Your task to perform on an android device: turn off location history Image 0: 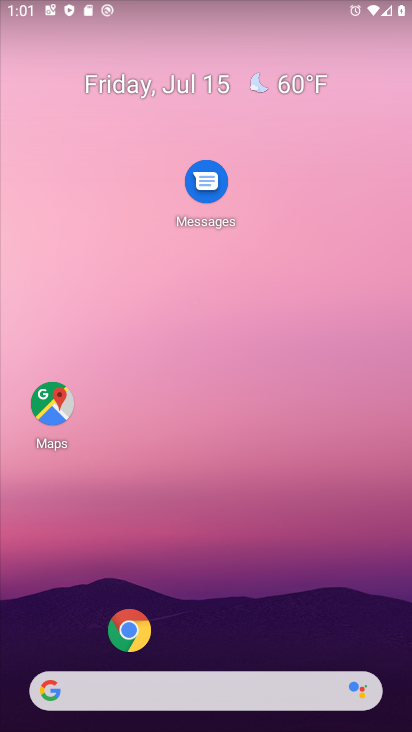
Step 0: drag from (10, 606) to (182, 86)
Your task to perform on an android device: turn off location history Image 1: 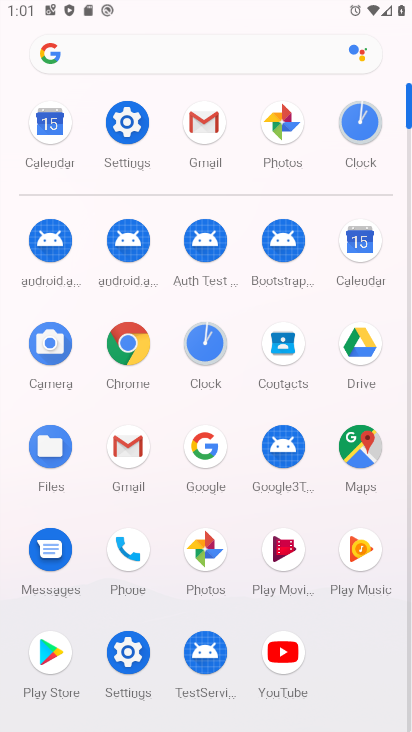
Step 1: click (128, 629)
Your task to perform on an android device: turn off location history Image 2: 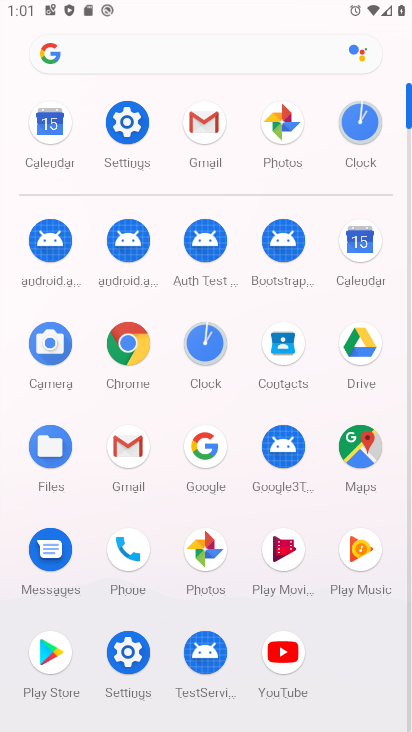
Step 2: click (120, 656)
Your task to perform on an android device: turn off location history Image 3: 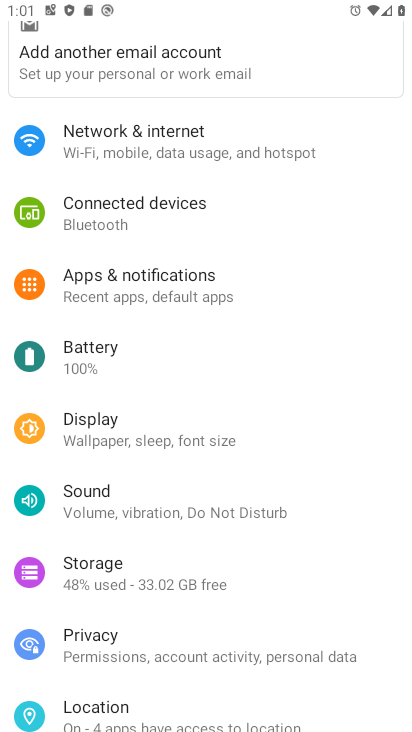
Step 3: click (97, 708)
Your task to perform on an android device: turn off location history Image 4: 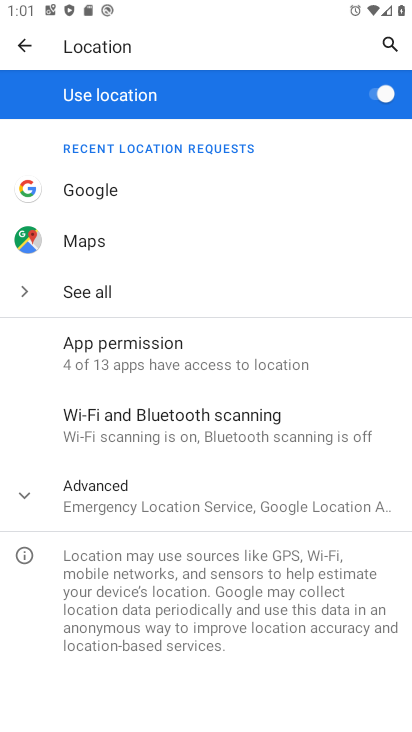
Step 4: click (104, 296)
Your task to perform on an android device: turn off location history Image 5: 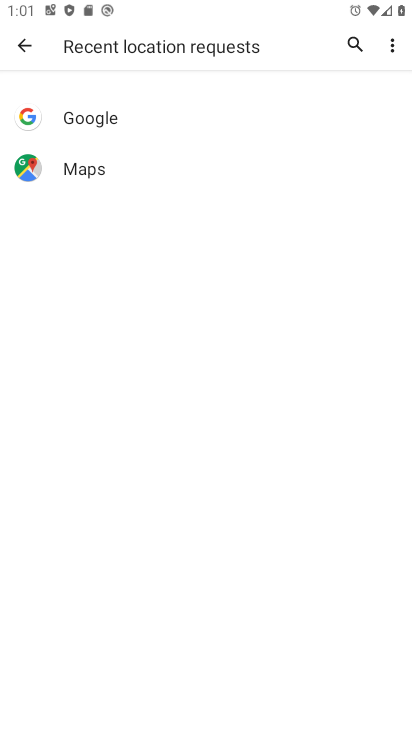
Step 5: click (30, 52)
Your task to perform on an android device: turn off location history Image 6: 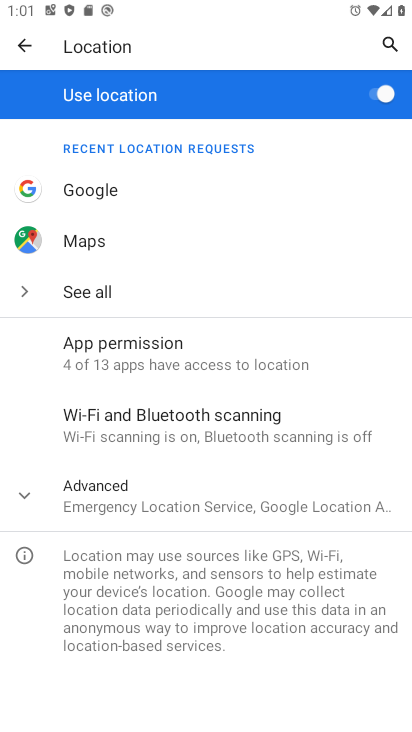
Step 6: click (119, 505)
Your task to perform on an android device: turn off location history Image 7: 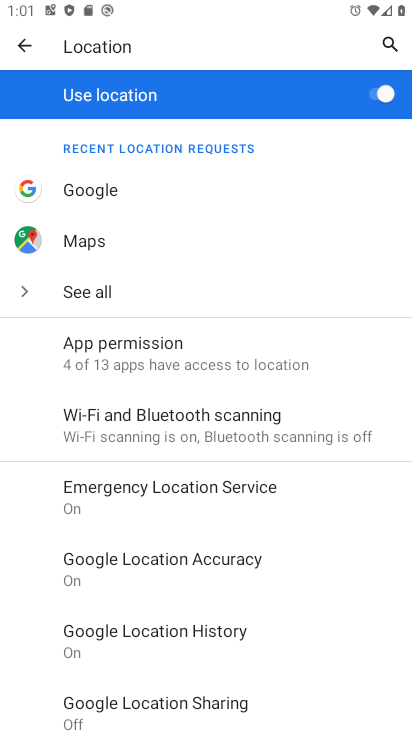
Step 7: drag from (303, 686) to (304, 418)
Your task to perform on an android device: turn off location history Image 8: 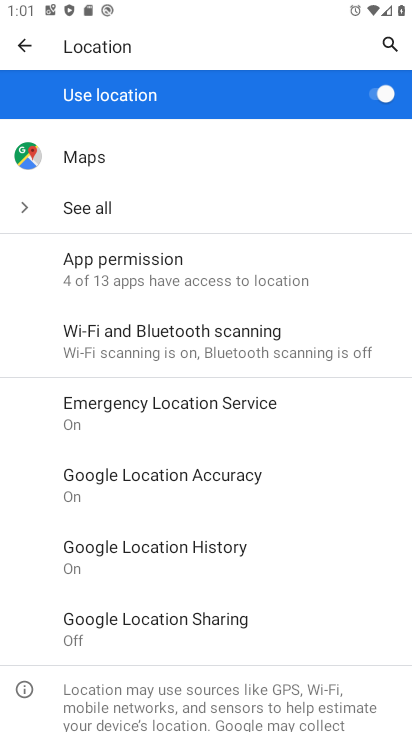
Step 8: click (166, 556)
Your task to perform on an android device: turn off location history Image 9: 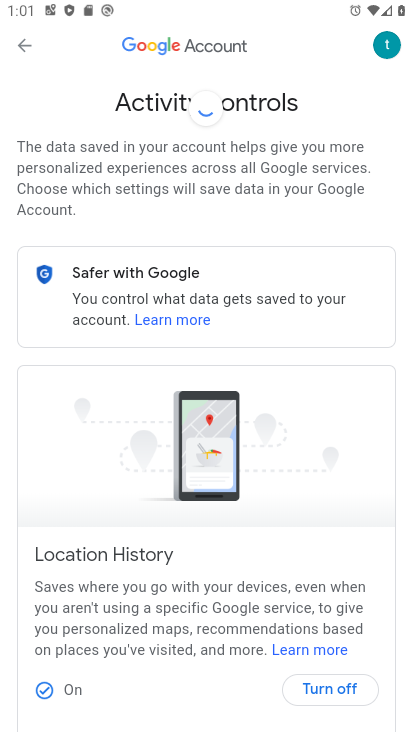
Step 9: click (318, 691)
Your task to perform on an android device: turn off location history Image 10: 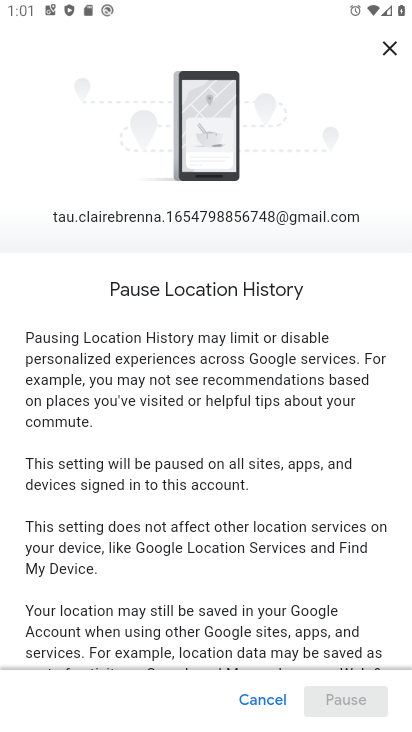
Step 10: click (334, 692)
Your task to perform on an android device: turn off location history Image 11: 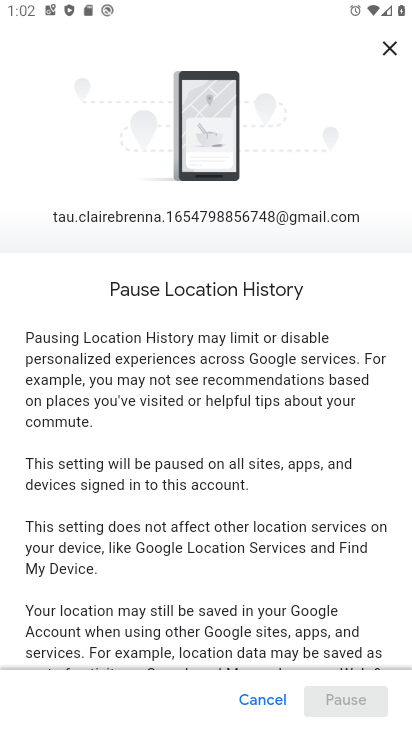
Step 11: drag from (247, 628) to (313, 171)
Your task to perform on an android device: turn off location history Image 12: 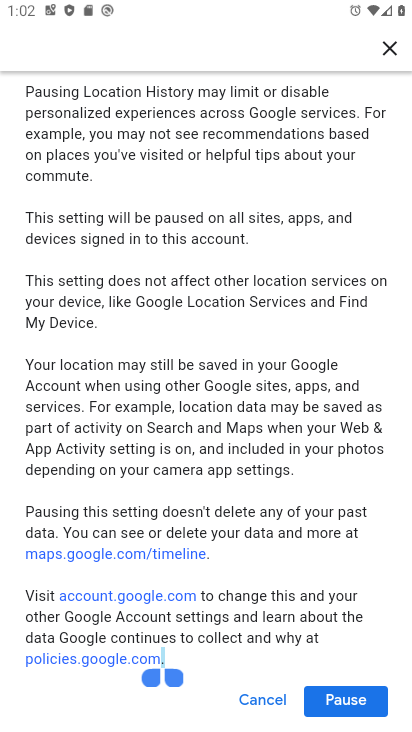
Step 12: click (335, 700)
Your task to perform on an android device: turn off location history Image 13: 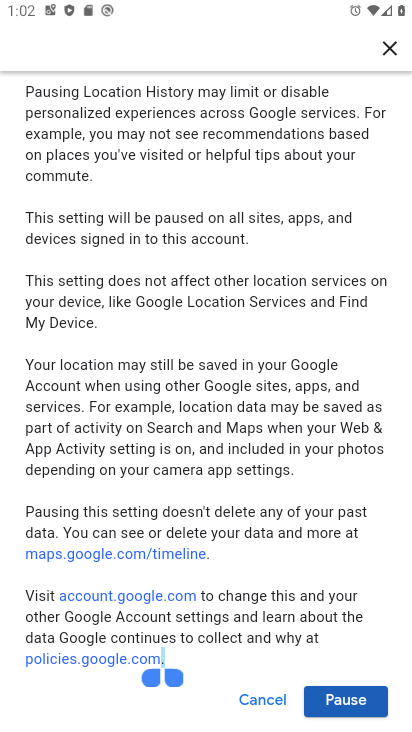
Step 13: click (370, 702)
Your task to perform on an android device: turn off location history Image 14: 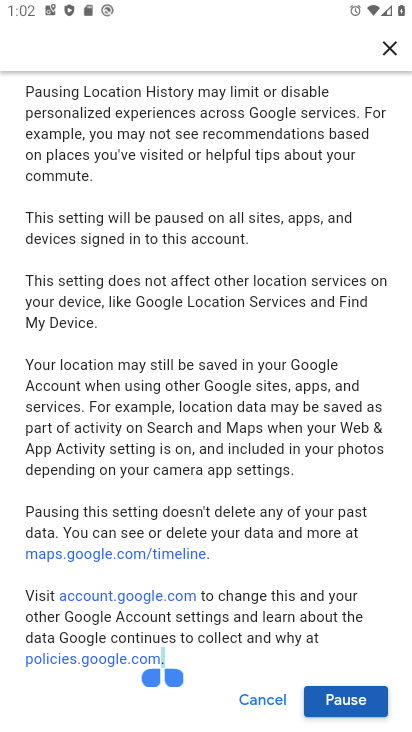
Step 14: drag from (274, 550) to (311, 229)
Your task to perform on an android device: turn off location history Image 15: 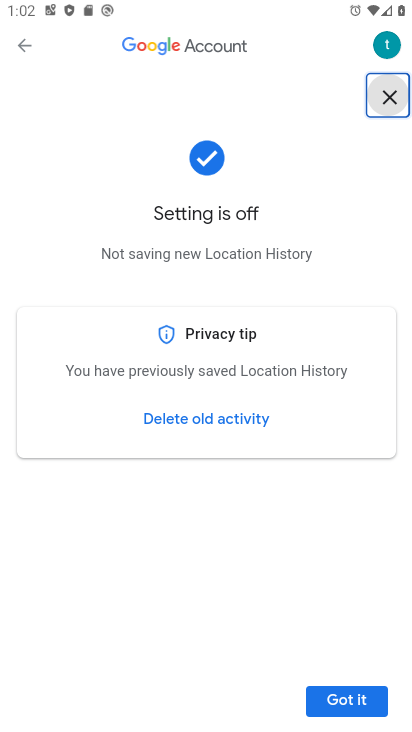
Step 15: click (359, 707)
Your task to perform on an android device: turn off location history Image 16: 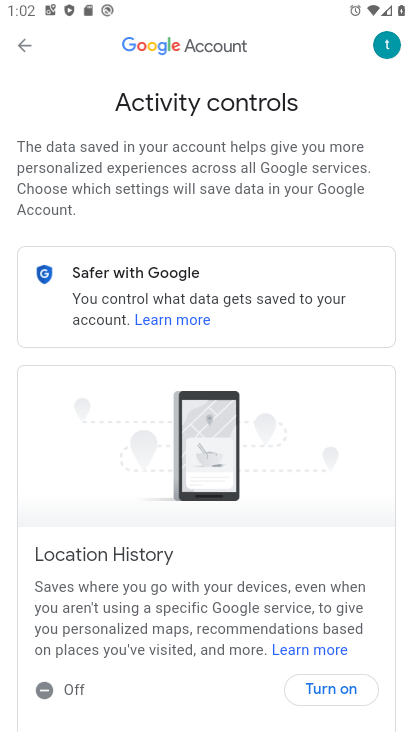
Step 16: task complete